Your task to perform on an android device: Open my contact list Image 0: 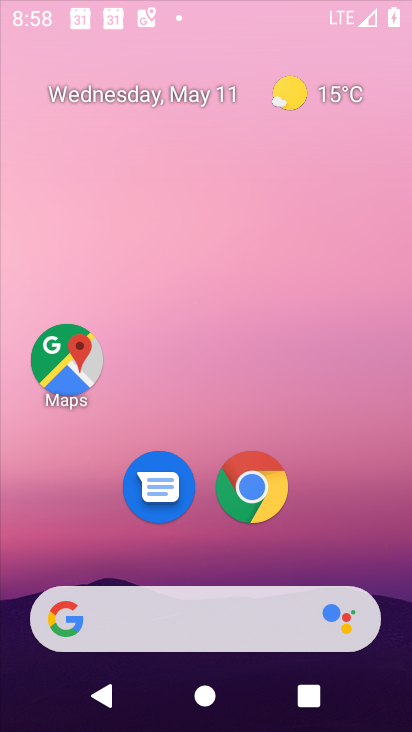
Step 0: press home button
Your task to perform on an android device: Open my contact list Image 1: 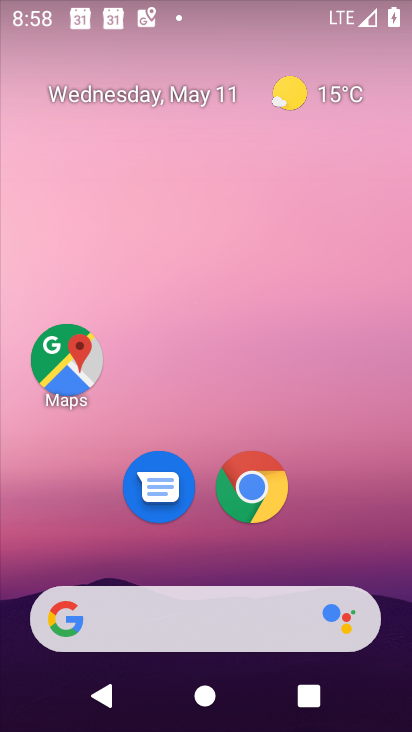
Step 1: drag from (271, 657) to (216, 209)
Your task to perform on an android device: Open my contact list Image 2: 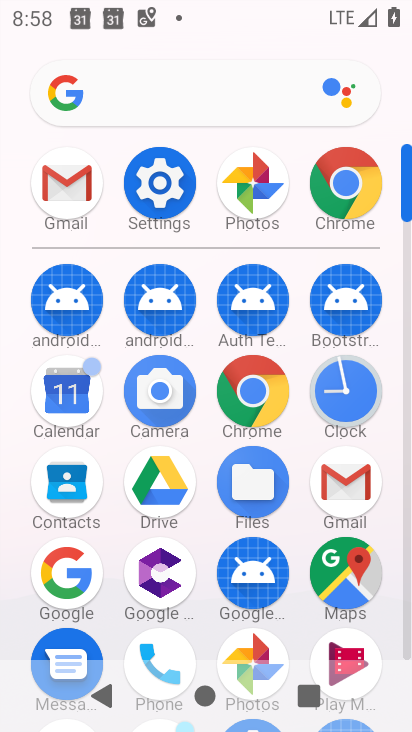
Step 2: click (177, 642)
Your task to perform on an android device: Open my contact list Image 3: 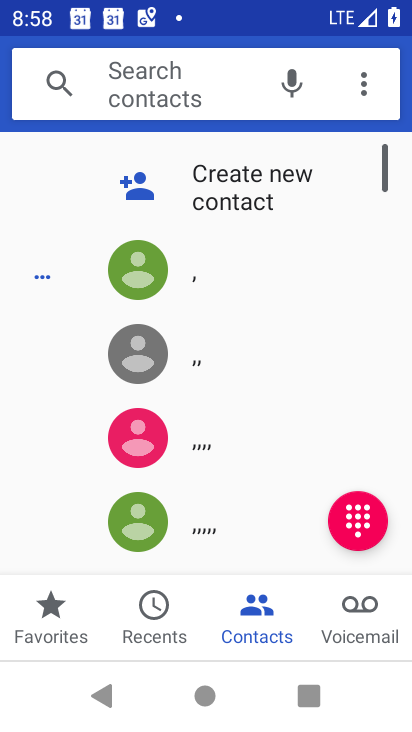
Step 3: click (238, 206)
Your task to perform on an android device: Open my contact list Image 4: 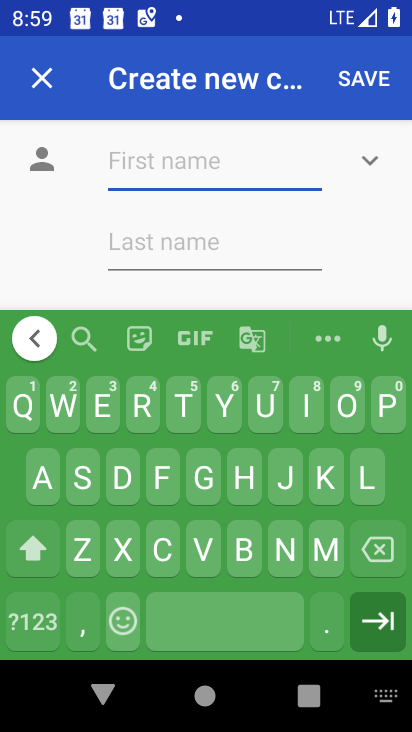
Step 4: click (198, 390)
Your task to perform on an android device: Open my contact list Image 5: 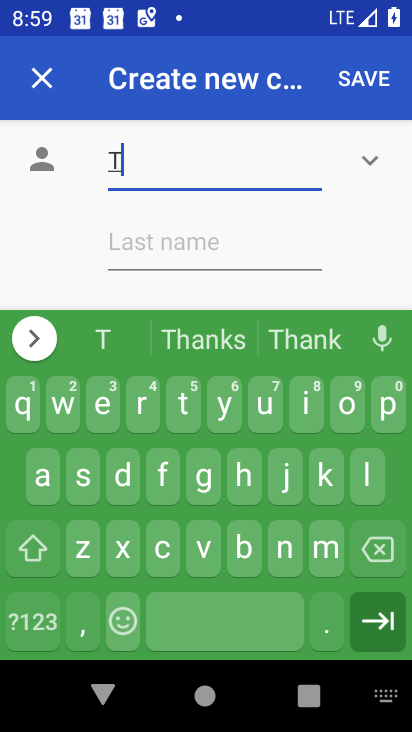
Step 5: click (202, 484)
Your task to perform on an android device: Open my contact list Image 6: 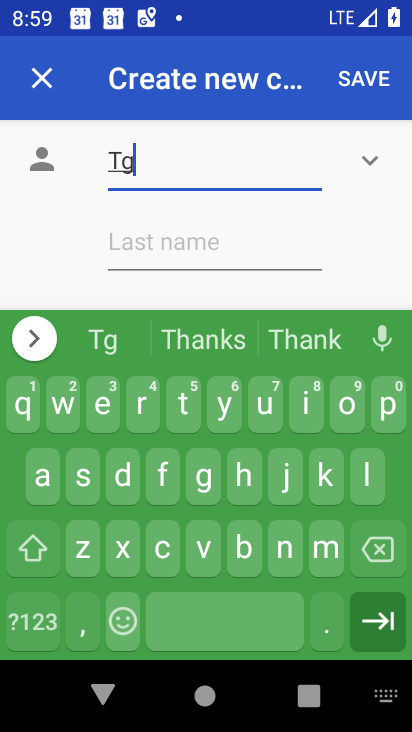
Step 6: drag from (242, 267) to (216, 180)
Your task to perform on an android device: Open my contact list Image 7: 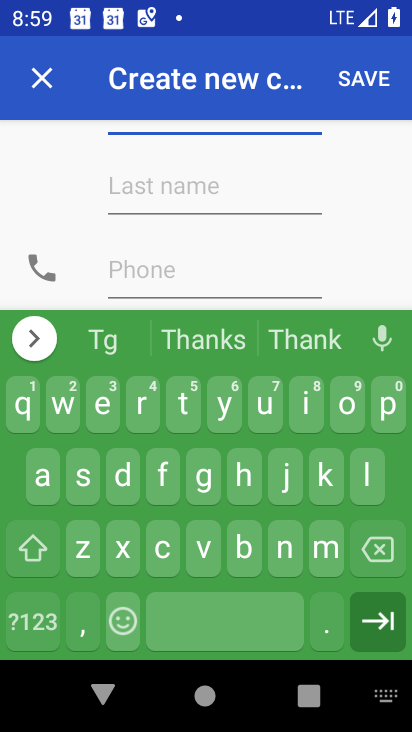
Step 7: click (157, 274)
Your task to perform on an android device: Open my contact list Image 8: 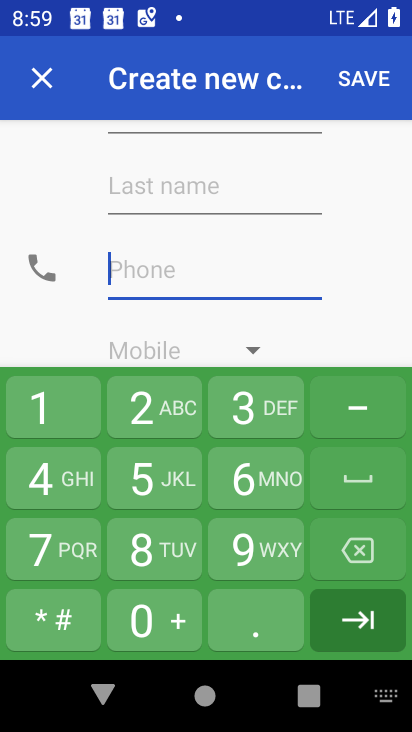
Step 8: click (150, 485)
Your task to perform on an android device: Open my contact list Image 9: 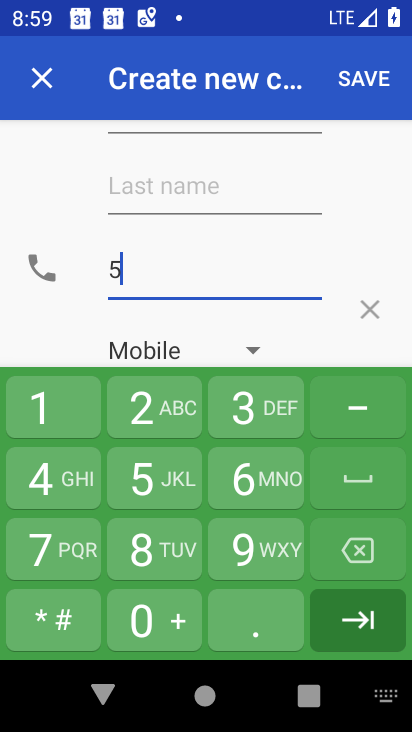
Step 9: click (149, 549)
Your task to perform on an android device: Open my contact list Image 10: 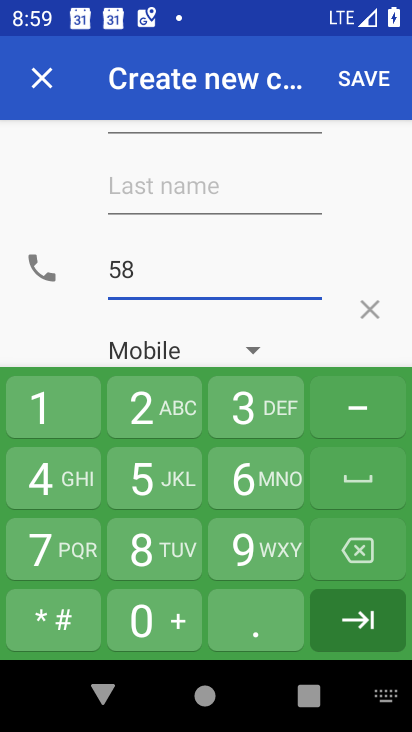
Step 10: click (191, 444)
Your task to perform on an android device: Open my contact list Image 11: 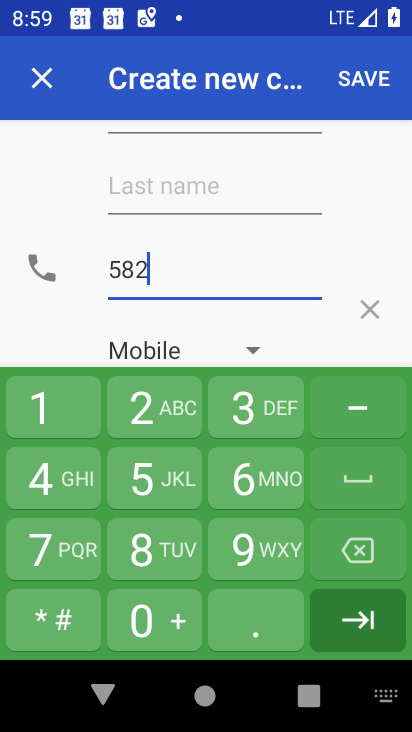
Step 11: click (154, 496)
Your task to perform on an android device: Open my contact list Image 12: 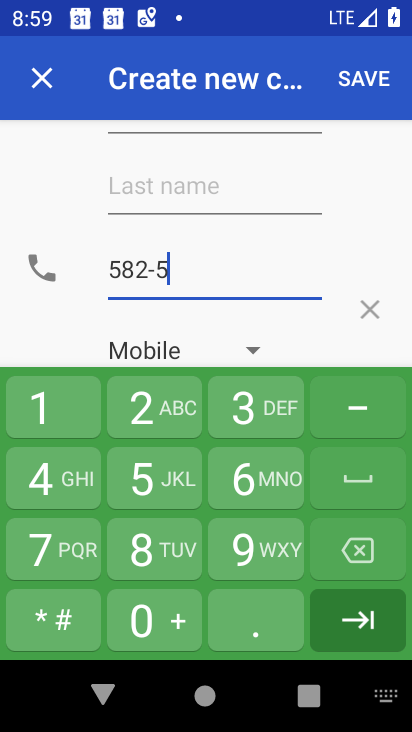
Step 12: click (34, 503)
Your task to perform on an android device: Open my contact list Image 13: 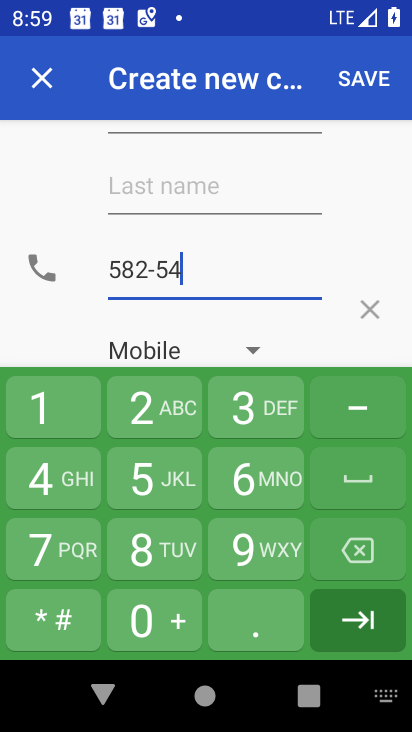
Step 13: click (13, 578)
Your task to perform on an android device: Open my contact list Image 14: 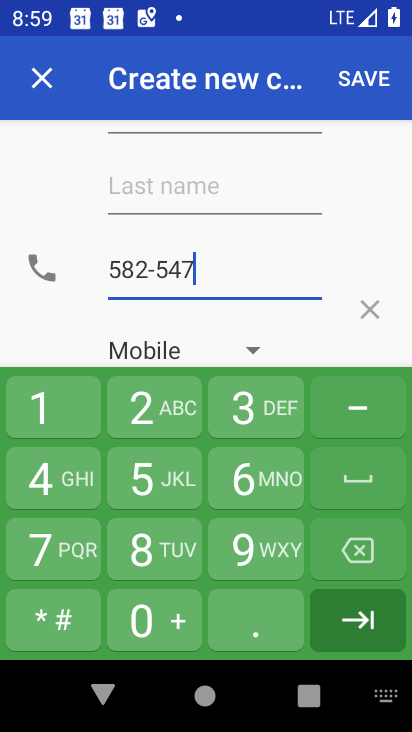
Step 14: click (381, 77)
Your task to perform on an android device: Open my contact list Image 15: 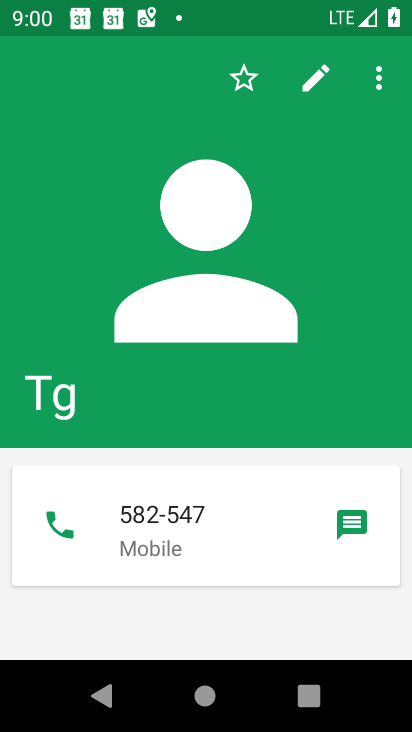
Step 15: task complete